Your task to perform on an android device: Turn on the flashlight Image 0: 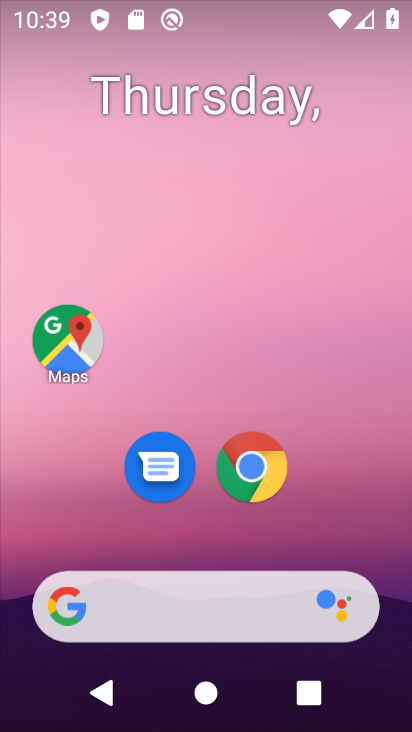
Step 0: drag from (195, 4) to (144, 648)
Your task to perform on an android device: Turn on the flashlight Image 1: 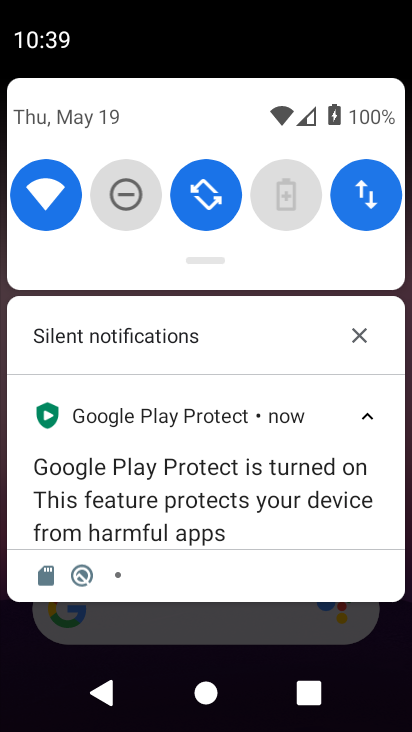
Step 1: task complete